Your task to perform on an android device: Search for the best selling vase on Crate & Barrel Image 0: 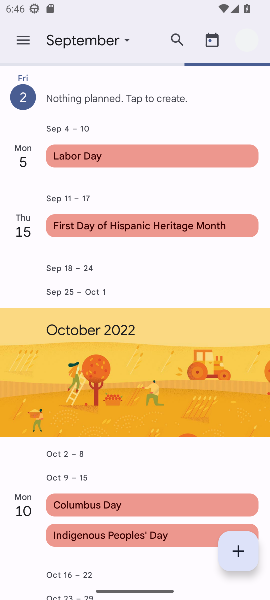
Step 0: press home button
Your task to perform on an android device: Search for the best selling vase on Crate & Barrel Image 1: 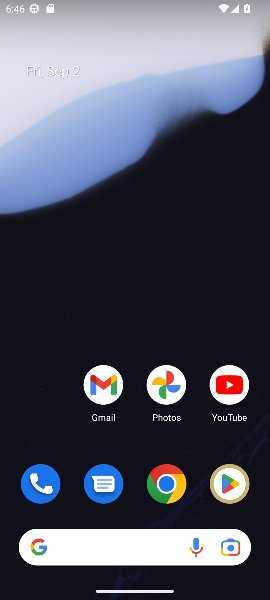
Step 1: click (172, 477)
Your task to perform on an android device: Search for the best selling vase on Crate & Barrel Image 2: 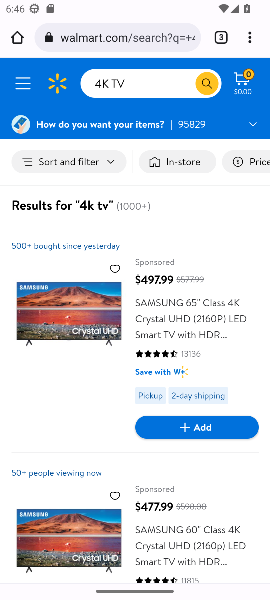
Step 2: click (158, 39)
Your task to perform on an android device: Search for the best selling vase on Crate & Barrel Image 3: 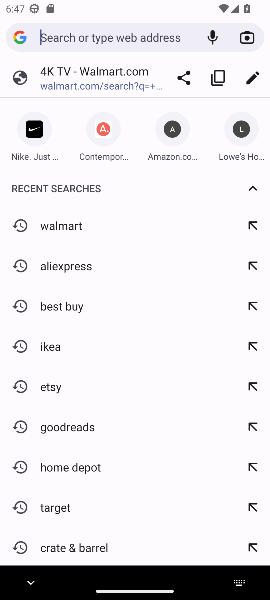
Step 3: type "Crate & Barrel"
Your task to perform on an android device: Search for the best selling vase on Crate & Barrel Image 4: 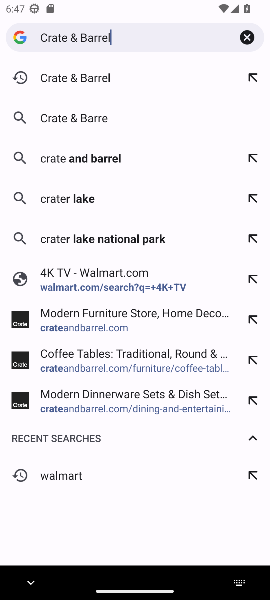
Step 4: press enter
Your task to perform on an android device: Search for the best selling vase on Crate & Barrel Image 5: 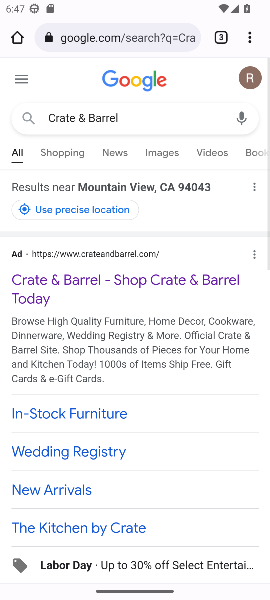
Step 5: drag from (174, 480) to (212, 141)
Your task to perform on an android device: Search for the best selling vase on Crate & Barrel Image 6: 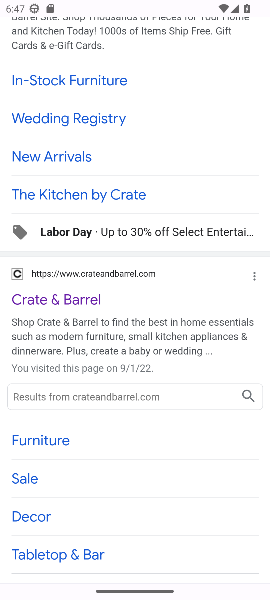
Step 6: click (81, 290)
Your task to perform on an android device: Search for the best selling vase on Crate & Barrel Image 7: 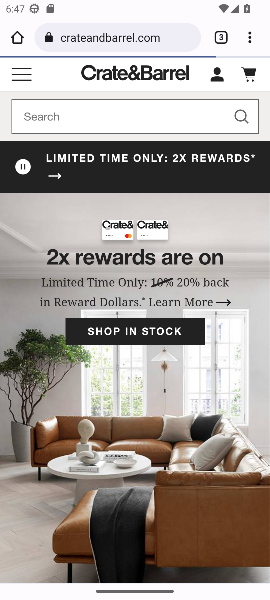
Step 7: click (129, 121)
Your task to perform on an android device: Search for the best selling vase on Crate & Barrel Image 8: 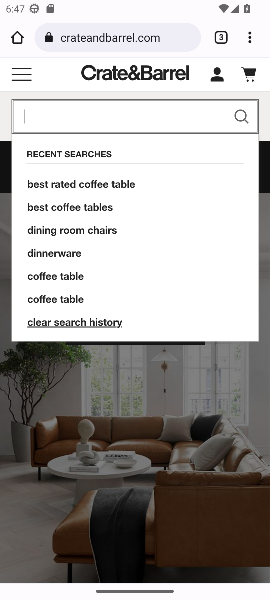
Step 8: click (131, 115)
Your task to perform on an android device: Search for the best selling vase on Crate & Barrel Image 9: 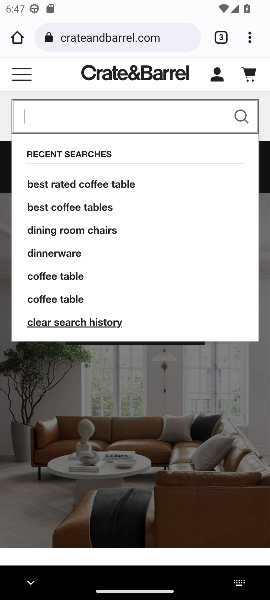
Step 9: click (21, 110)
Your task to perform on an android device: Search for the best selling vase on Crate & Barrel Image 10: 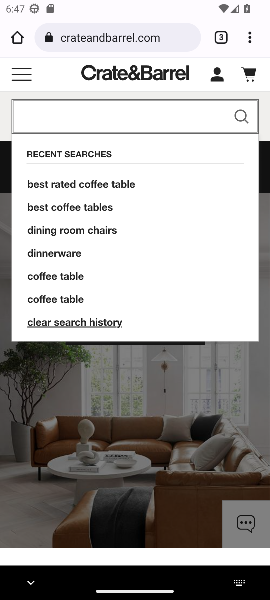
Step 10: type " vase "
Your task to perform on an android device: Search for the best selling vase on Crate & Barrel Image 11: 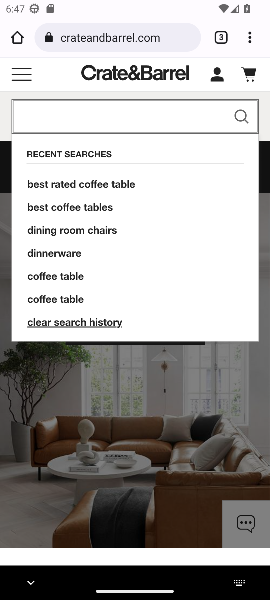
Step 11: press enter
Your task to perform on an android device: Search for the best selling vase on Crate & Barrel Image 12: 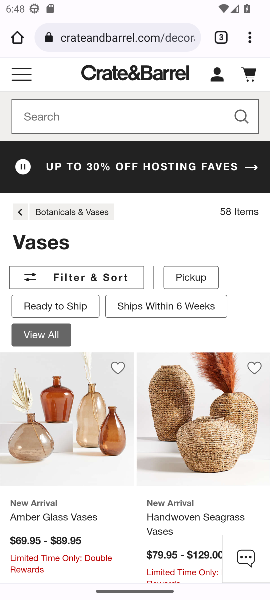
Step 12: task complete